Your task to perform on an android device: Check the news Image 0: 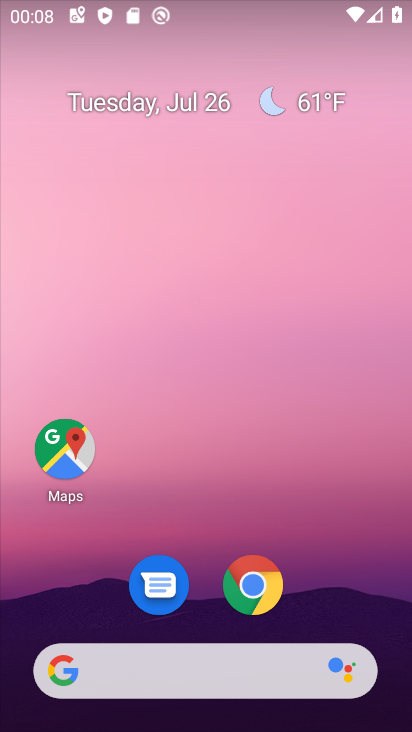
Step 0: click (222, 678)
Your task to perform on an android device: Check the news Image 1: 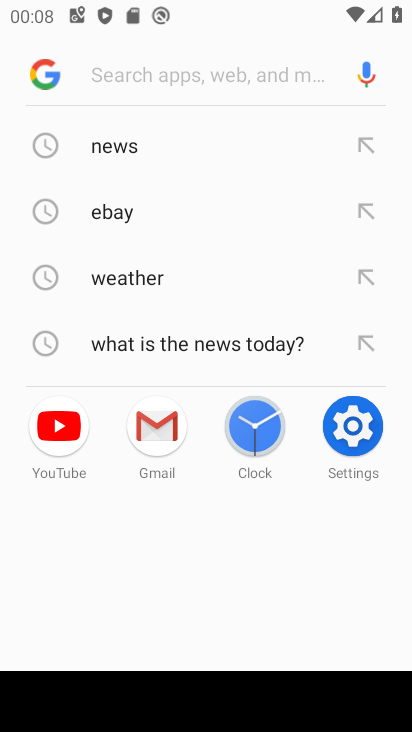
Step 1: click (102, 139)
Your task to perform on an android device: Check the news Image 2: 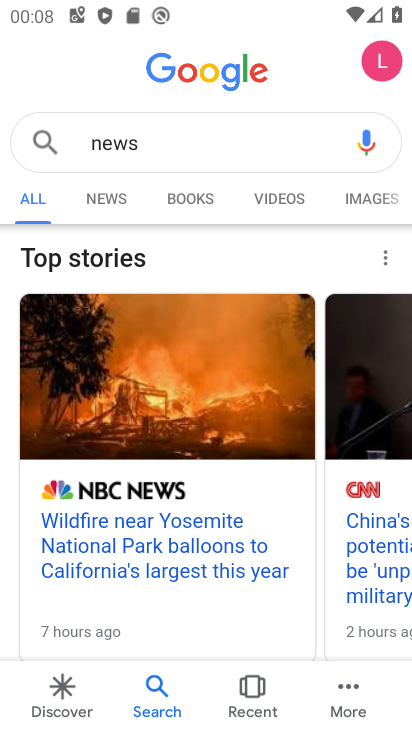
Step 2: click (112, 195)
Your task to perform on an android device: Check the news Image 3: 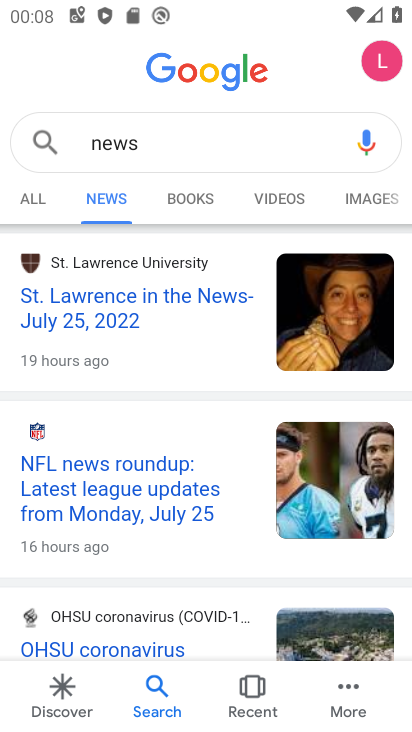
Step 3: task complete